Your task to perform on an android device: Open Yahoo.com Image 0: 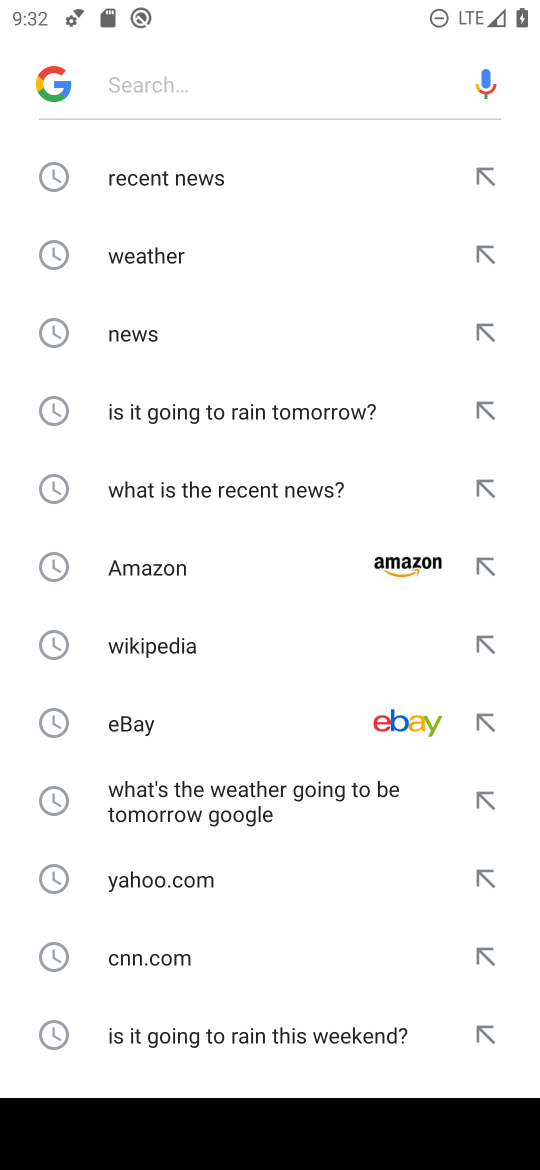
Step 0: press home button
Your task to perform on an android device: Open Yahoo.com Image 1: 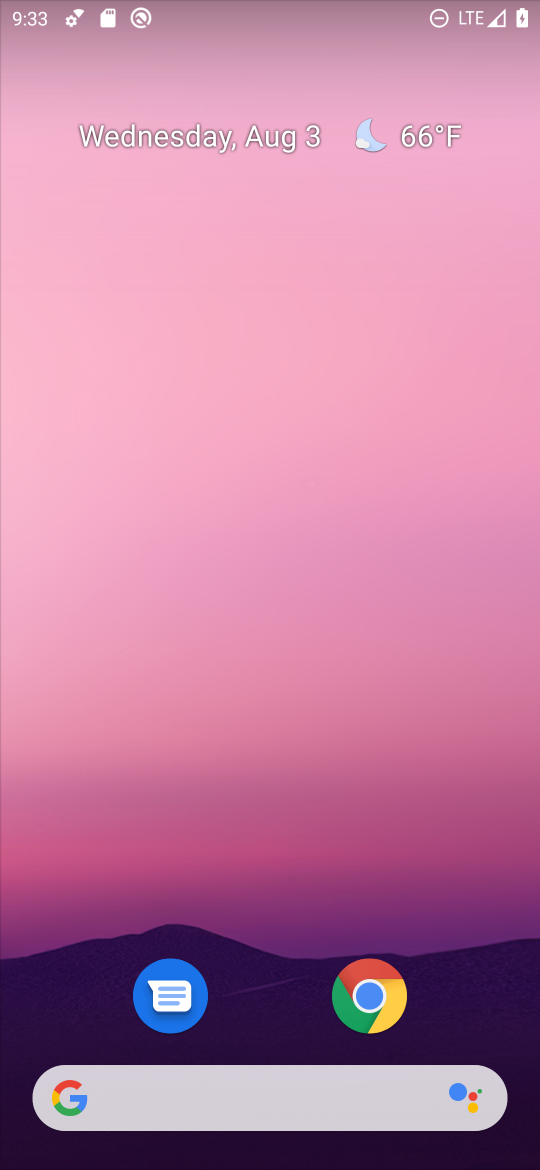
Step 1: click (304, 1110)
Your task to perform on an android device: Open Yahoo.com Image 2: 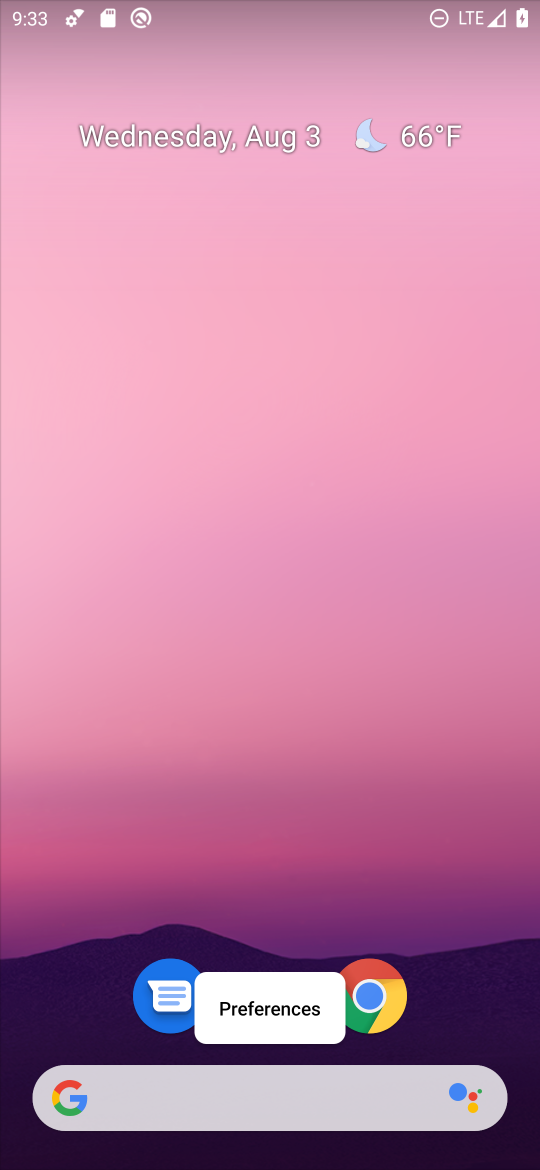
Step 2: click (291, 1098)
Your task to perform on an android device: Open Yahoo.com Image 3: 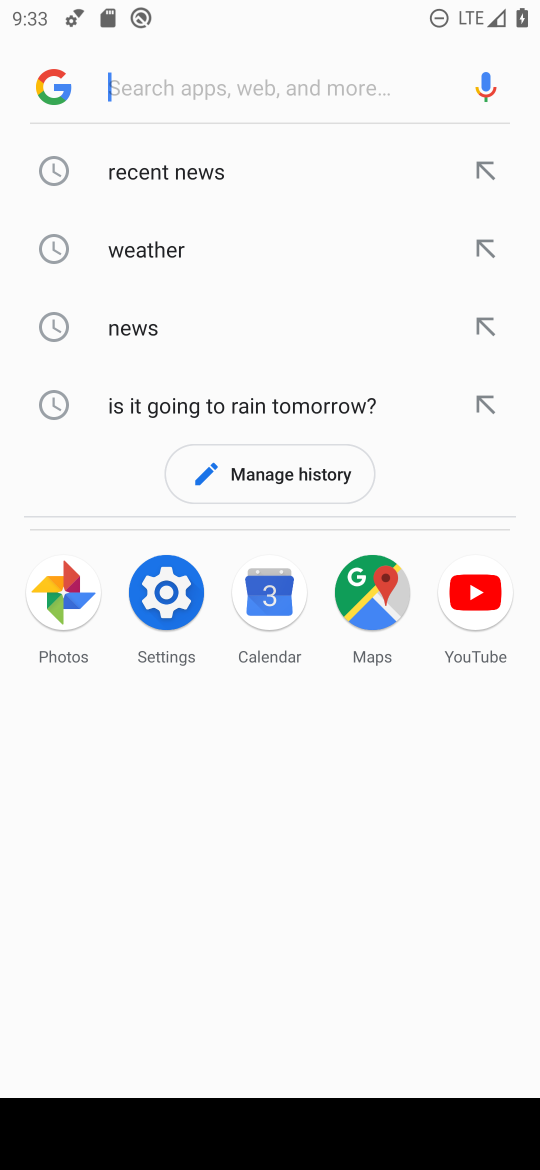
Step 3: type "yahoo.com"
Your task to perform on an android device: Open Yahoo.com Image 4: 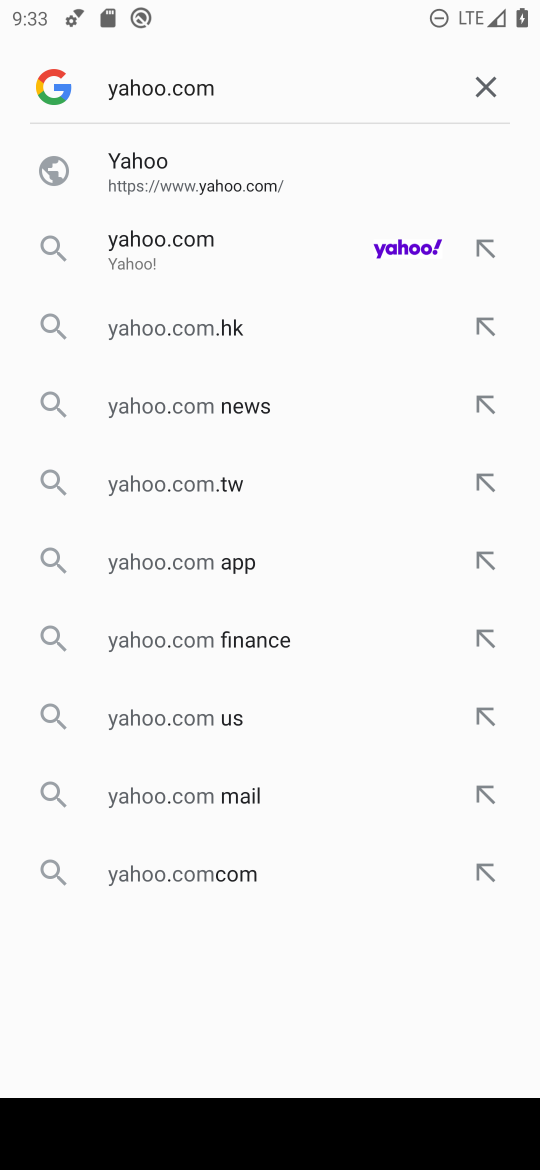
Step 4: click (321, 254)
Your task to perform on an android device: Open Yahoo.com Image 5: 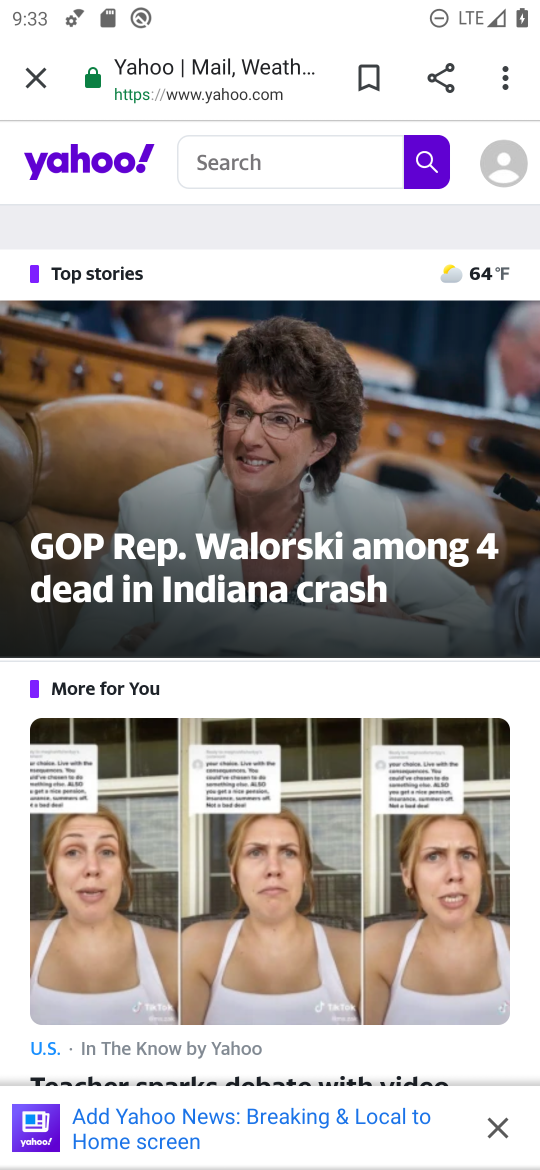
Step 5: task complete